Your task to perform on an android device: Go to battery settings Image 0: 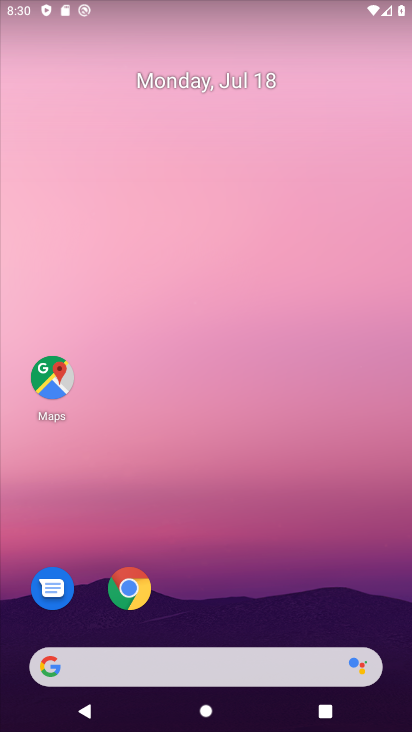
Step 0: drag from (223, 665) to (304, 72)
Your task to perform on an android device: Go to battery settings Image 1: 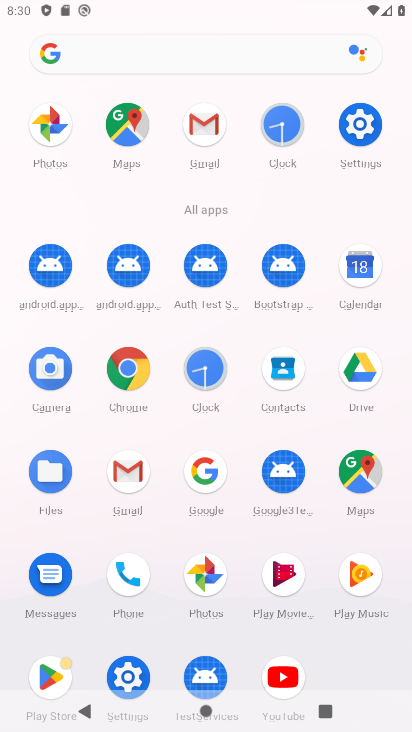
Step 1: click (367, 125)
Your task to perform on an android device: Go to battery settings Image 2: 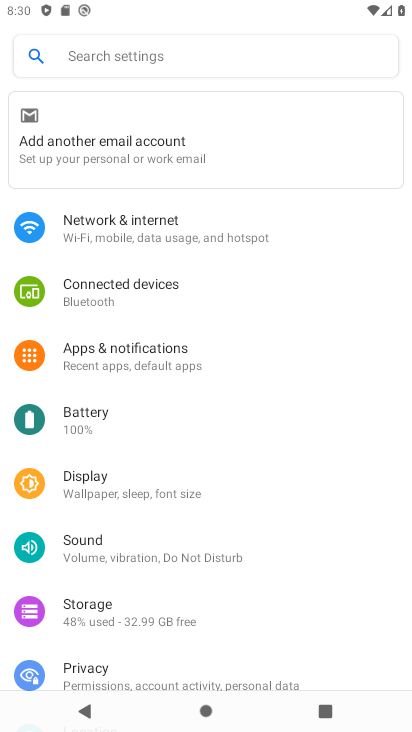
Step 2: click (82, 417)
Your task to perform on an android device: Go to battery settings Image 3: 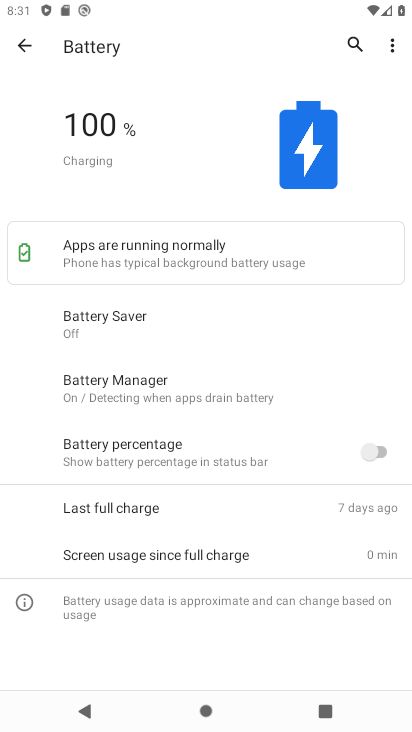
Step 3: task complete